Your task to perform on an android device: Go to Android settings Image 0: 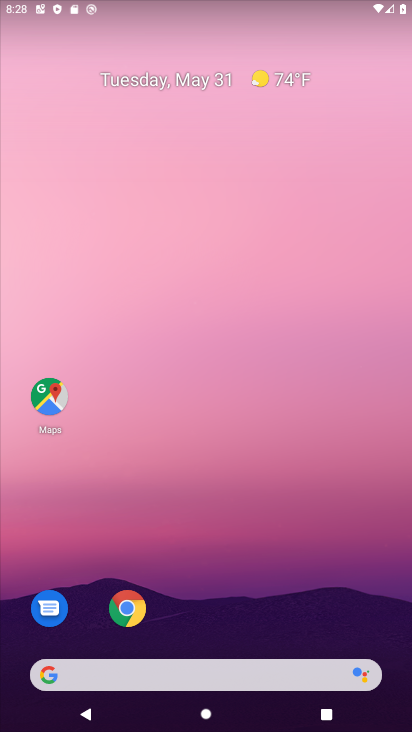
Step 0: drag from (243, 614) to (128, 0)
Your task to perform on an android device: Go to Android settings Image 1: 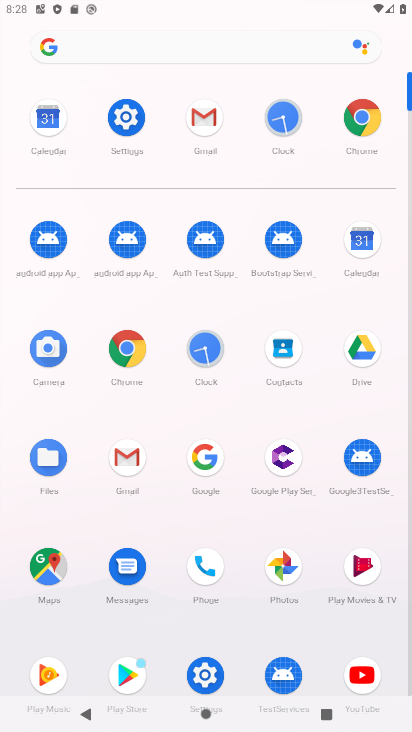
Step 1: click (132, 104)
Your task to perform on an android device: Go to Android settings Image 2: 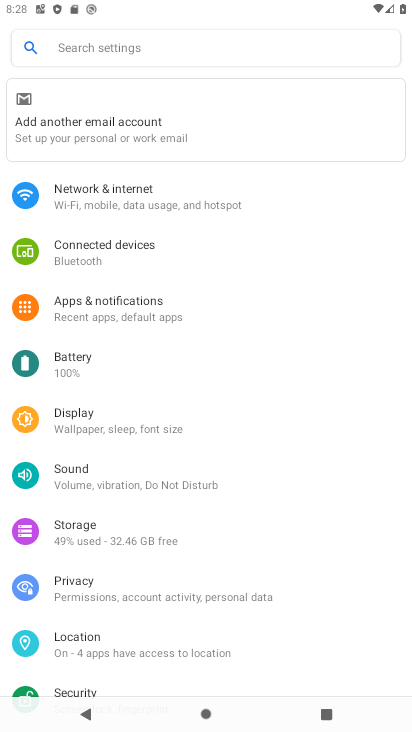
Step 2: task complete